Your task to perform on an android device: turn pop-ups off in chrome Image 0: 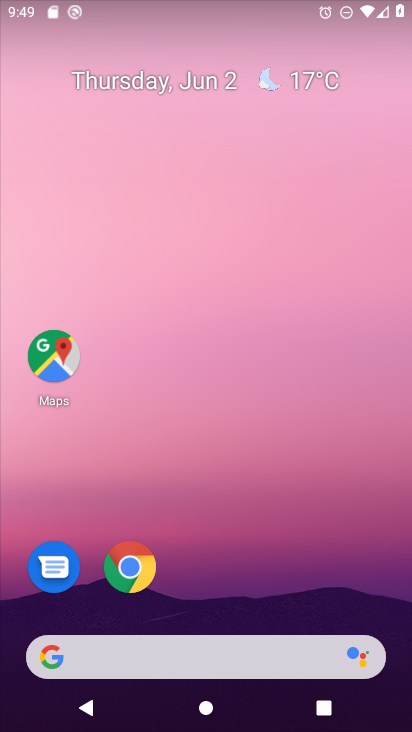
Step 0: click (139, 568)
Your task to perform on an android device: turn pop-ups off in chrome Image 1: 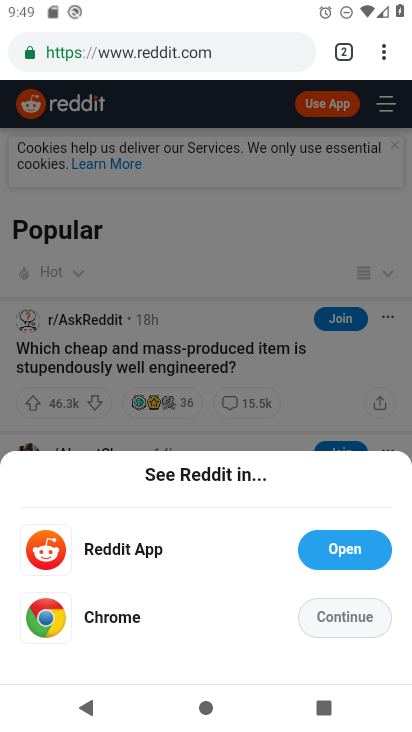
Step 1: click (382, 64)
Your task to perform on an android device: turn pop-ups off in chrome Image 2: 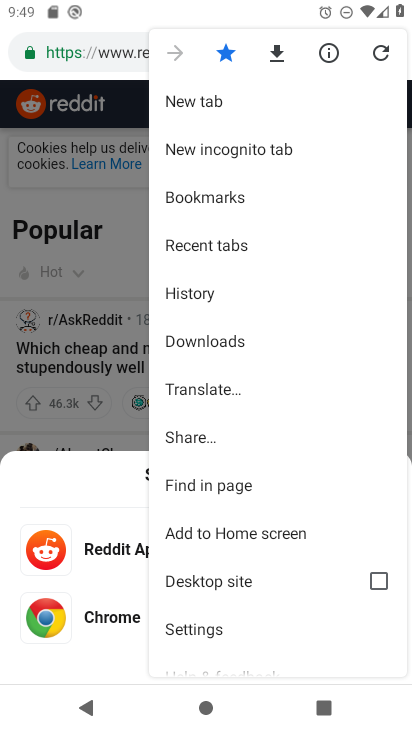
Step 2: click (227, 630)
Your task to perform on an android device: turn pop-ups off in chrome Image 3: 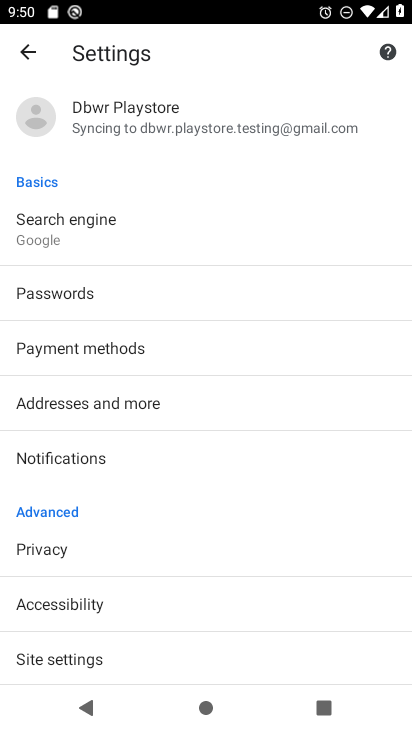
Step 3: drag from (109, 504) to (150, 188)
Your task to perform on an android device: turn pop-ups off in chrome Image 4: 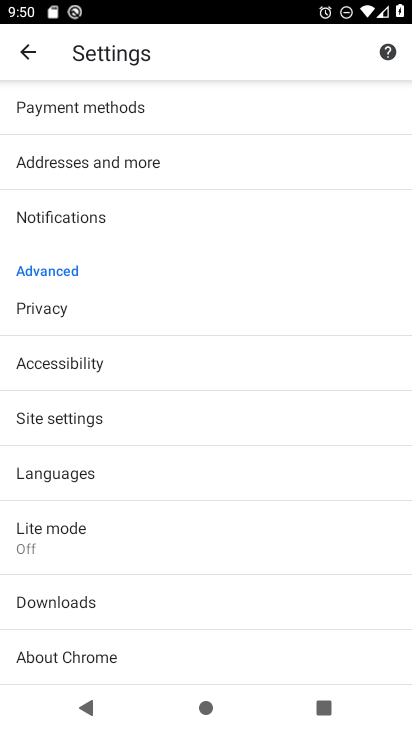
Step 4: click (84, 420)
Your task to perform on an android device: turn pop-ups off in chrome Image 5: 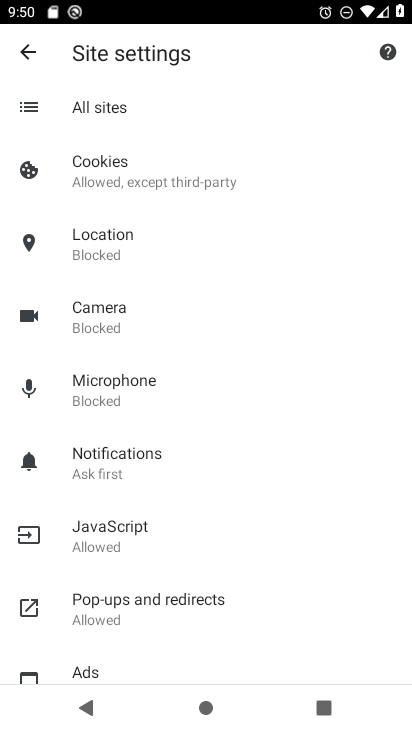
Step 5: click (142, 609)
Your task to perform on an android device: turn pop-ups off in chrome Image 6: 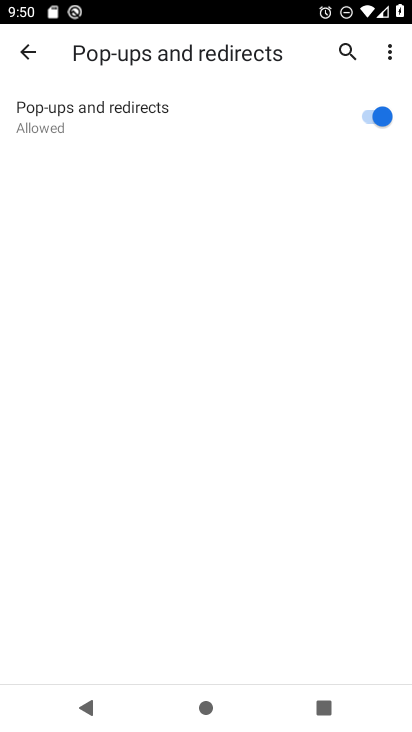
Step 6: click (365, 118)
Your task to perform on an android device: turn pop-ups off in chrome Image 7: 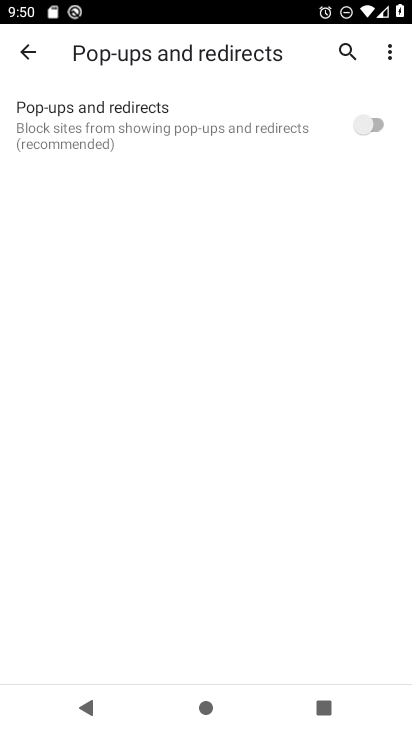
Step 7: task complete